Your task to perform on an android device: Open calendar and show me the fourth week of next month Image 0: 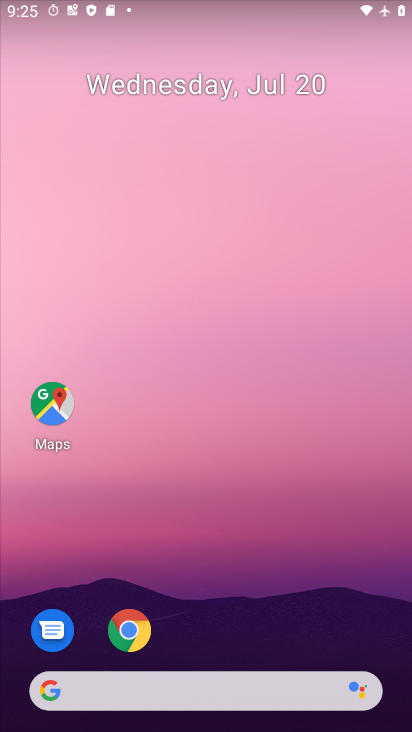
Step 0: drag from (156, 658) to (223, 171)
Your task to perform on an android device: Open calendar and show me the fourth week of next month Image 1: 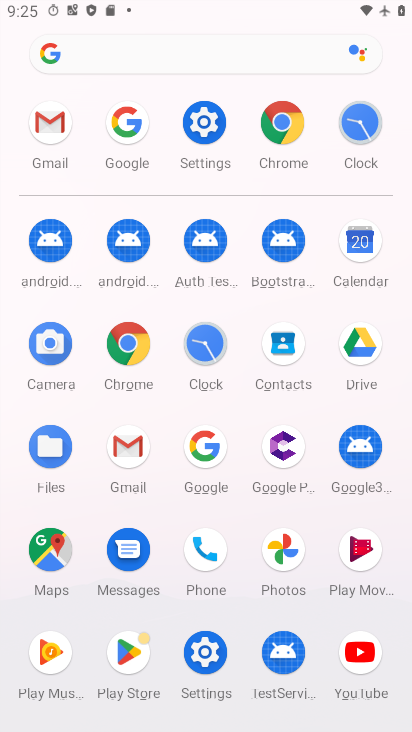
Step 1: click (358, 266)
Your task to perform on an android device: Open calendar and show me the fourth week of next month Image 2: 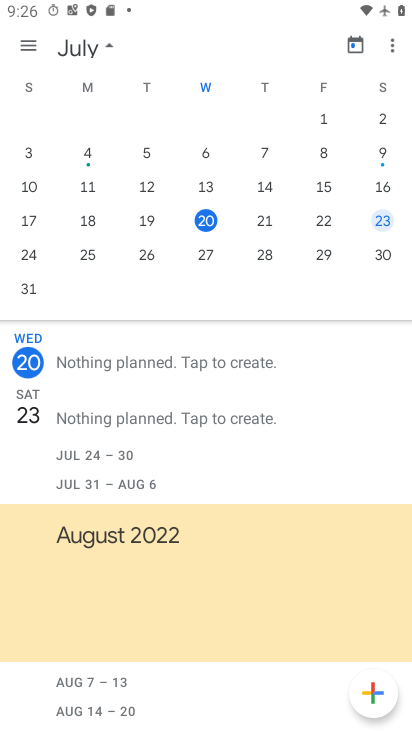
Step 2: drag from (331, 206) to (23, 183)
Your task to perform on an android device: Open calendar and show me the fourth week of next month Image 3: 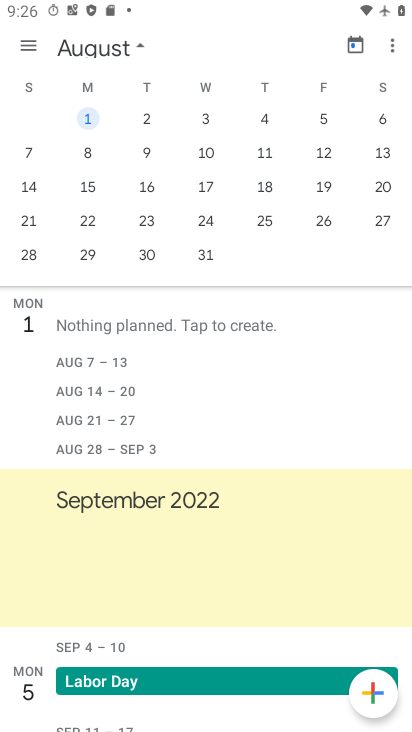
Step 3: click (93, 223)
Your task to perform on an android device: Open calendar and show me the fourth week of next month Image 4: 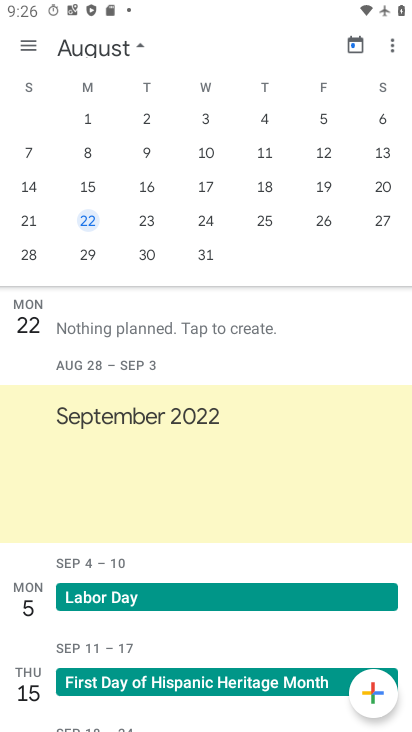
Step 4: task complete